Your task to perform on an android device: Check the weather Image 0: 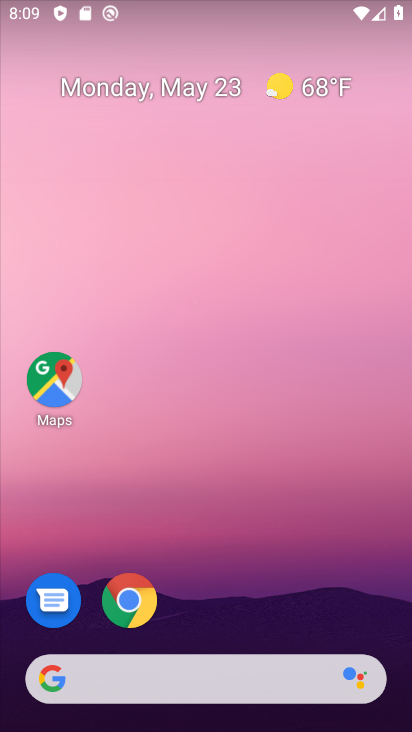
Step 0: click (147, 695)
Your task to perform on an android device: Check the weather Image 1: 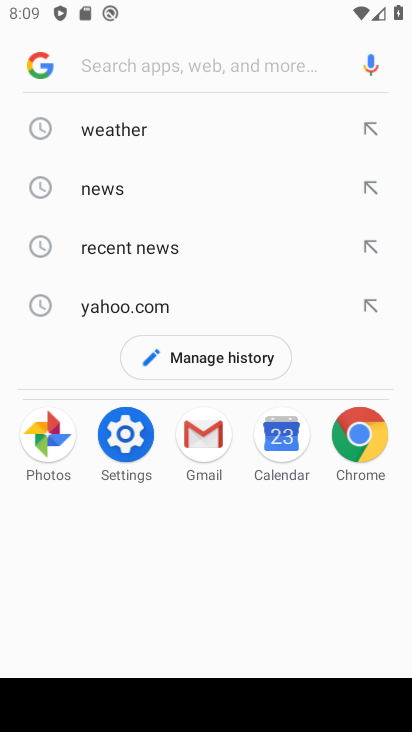
Step 1: click (133, 142)
Your task to perform on an android device: Check the weather Image 2: 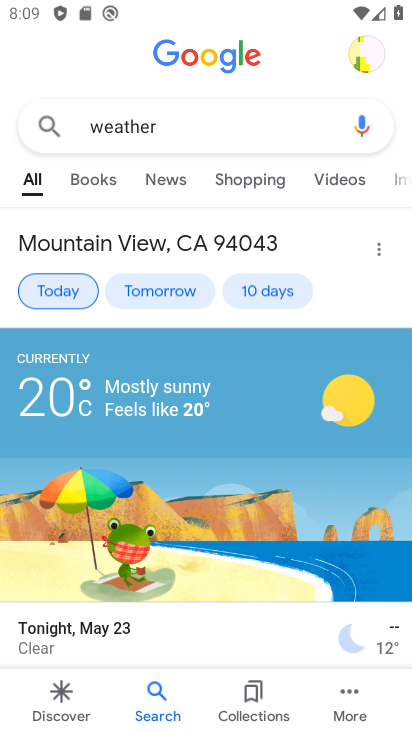
Step 2: task complete